Your task to perform on an android device: Open calendar and show me the third week of next month Image 0: 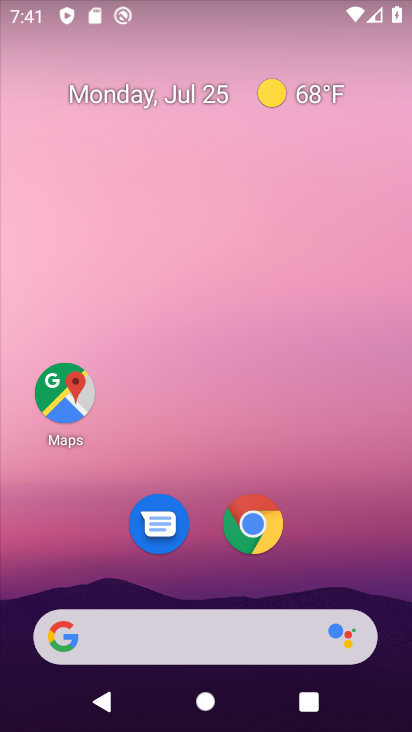
Step 0: drag from (335, 541) to (315, 61)
Your task to perform on an android device: Open calendar and show me the third week of next month Image 1: 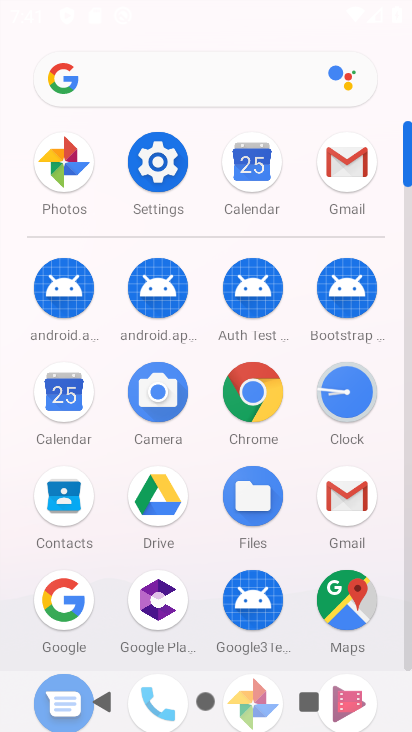
Step 1: click (251, 166)
Your task to perform on an android device: Open calendar and show me the third week of next month Image 2: 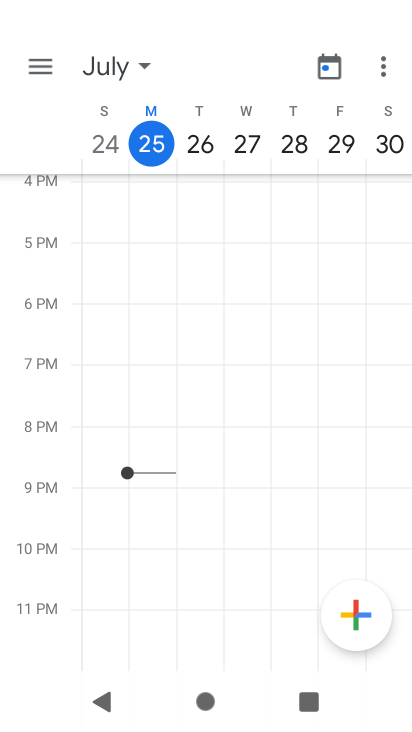
Step 2: task complete